Your task to perform on an android device: uninstall "Facebook Lite" Image 0: 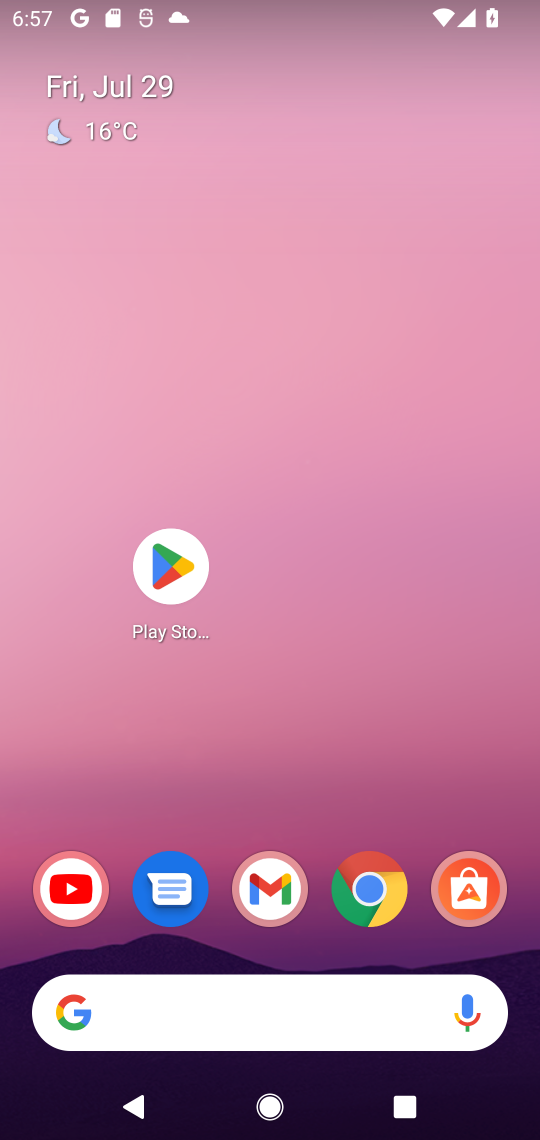
Step 0: press home button
Your task to perform on an android device: uninstall "Facebook Lite" Image 1: 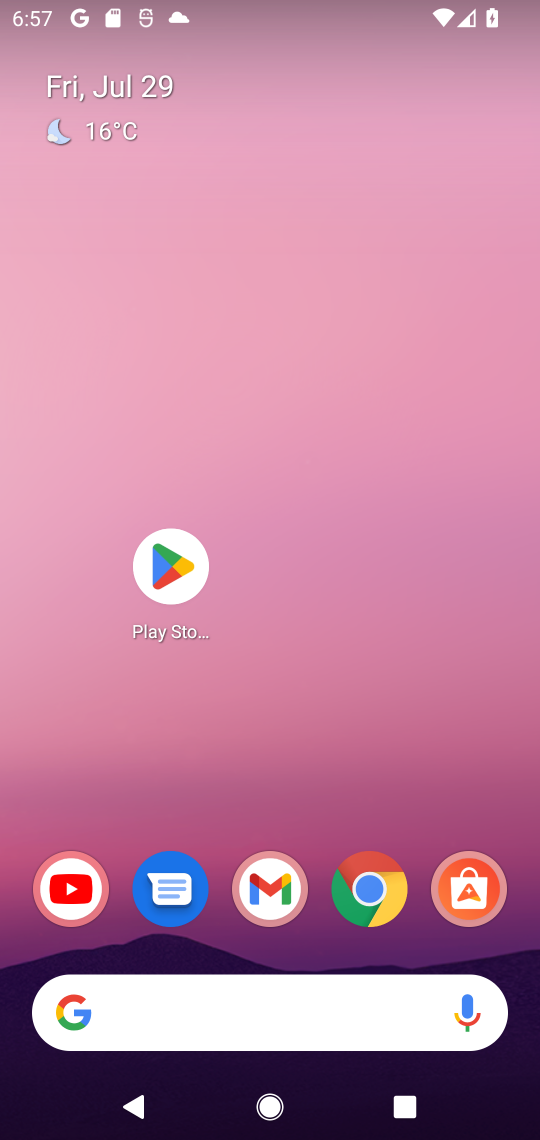
Step 1: click (172, 567)
Your task to perform on an android device: uninstall "Facebook Lite" Image 2: 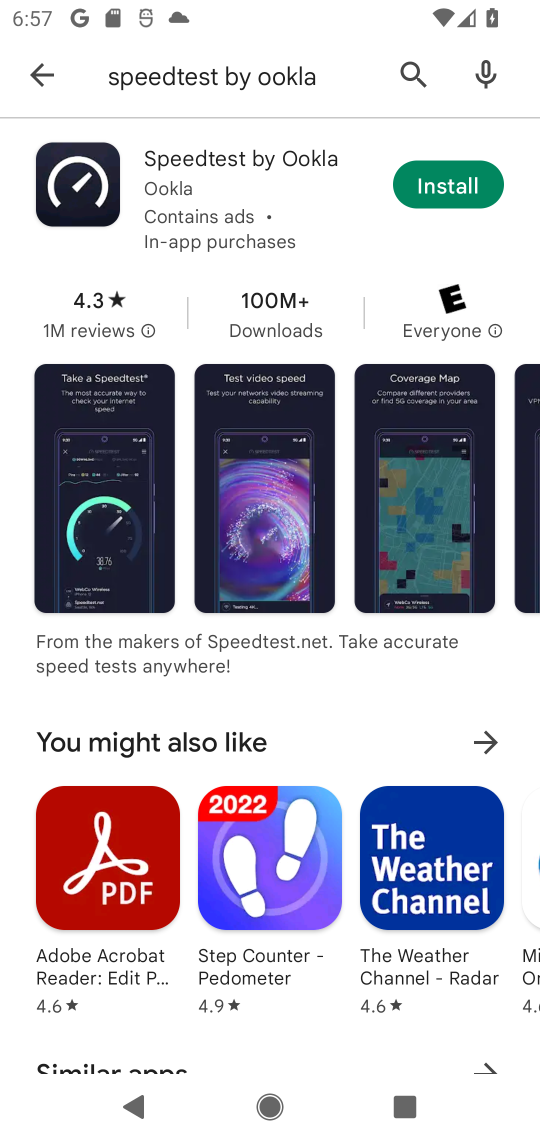
Step 2: click (406, 64)
Your task to perform on an android device: uninstall "Facebook Lite" Image 3: 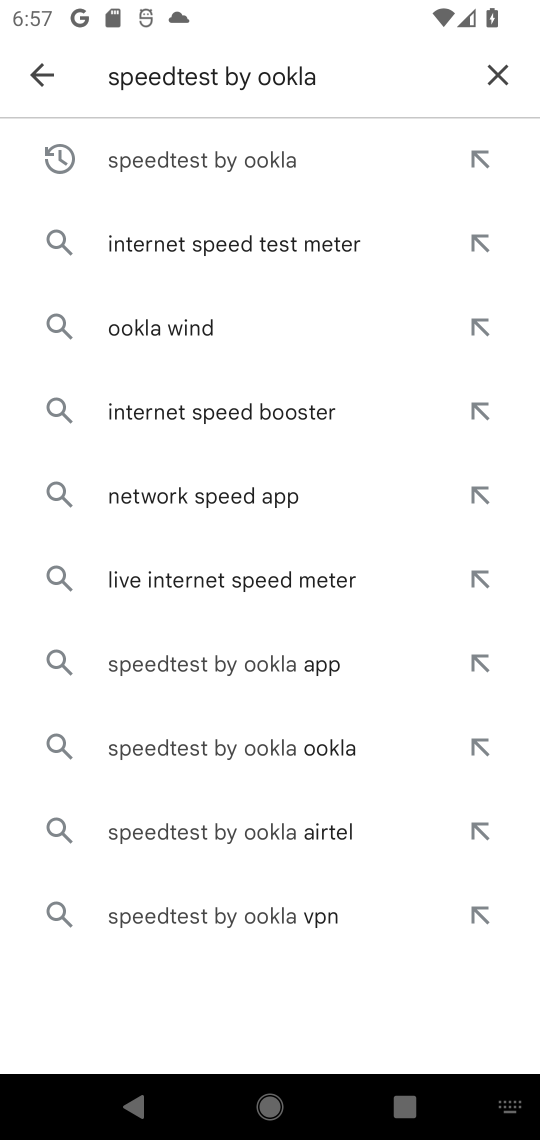
Step 3: click (496, 76)
Your task to perform on an android device: uninstall "Facebook Lite" Image 4: 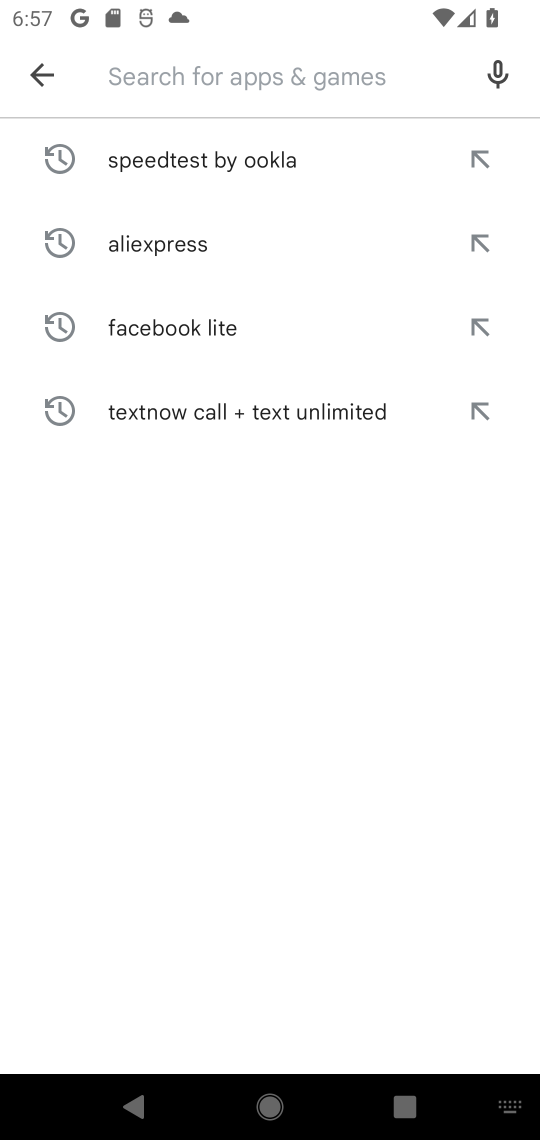
Step 4: type "Facebook Lite"
Your task to perform on an android device: uninstall "Facebook Lite" Image 5: 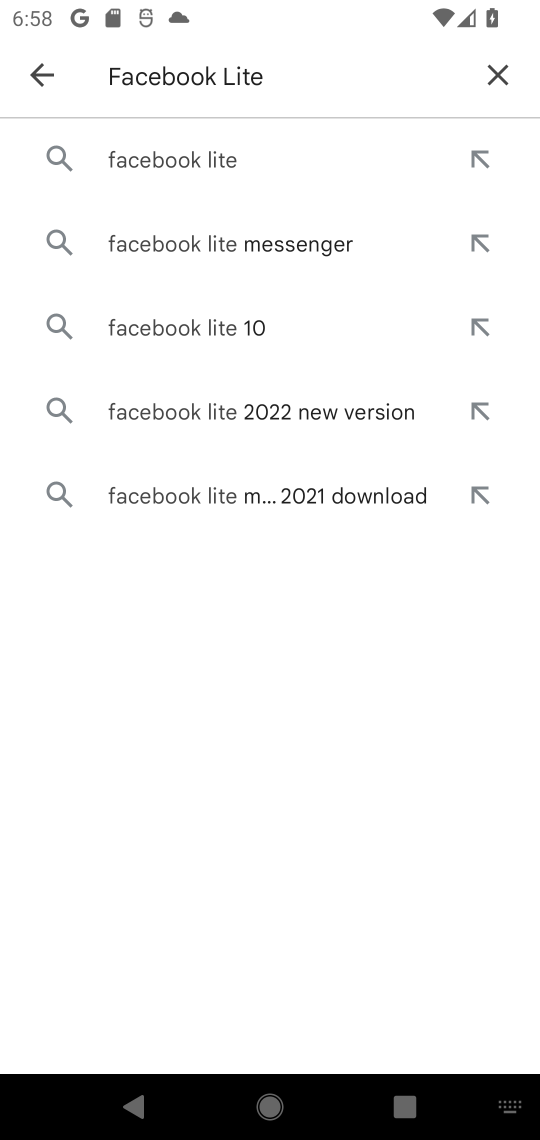
Step 5: click (205, 156)
Your task to perform on an android device: uninstall "Facebook Lite" Image 6: 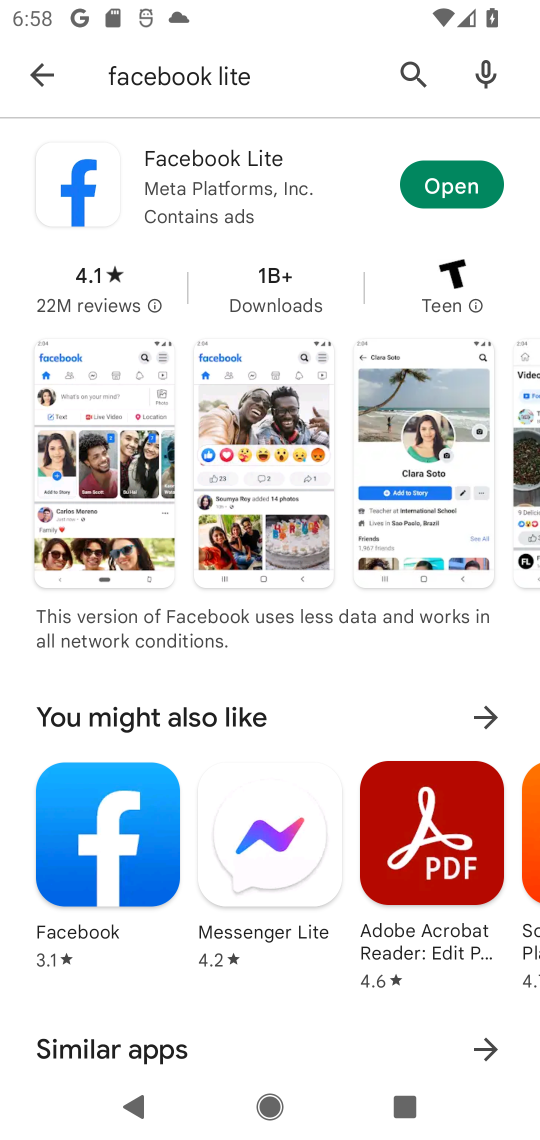
Step 6: click (106, 177)
Your task to perform on an android device: uninstall "Facebook Lite" Image 7: 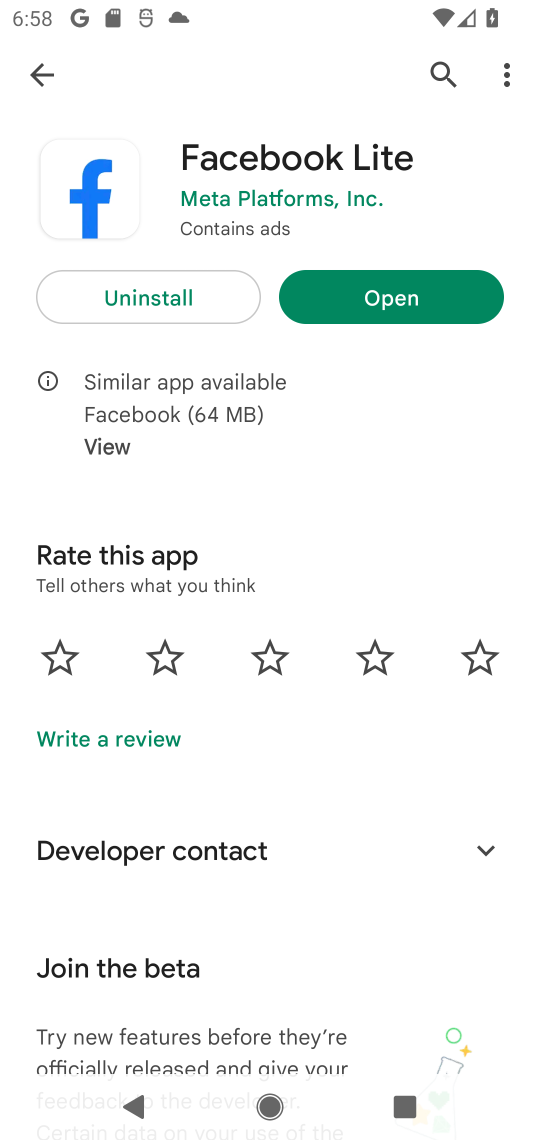
Step 7: click (166, 296)
Your task to perform on an android device: uninstall "Facebook Lite" Image 8: 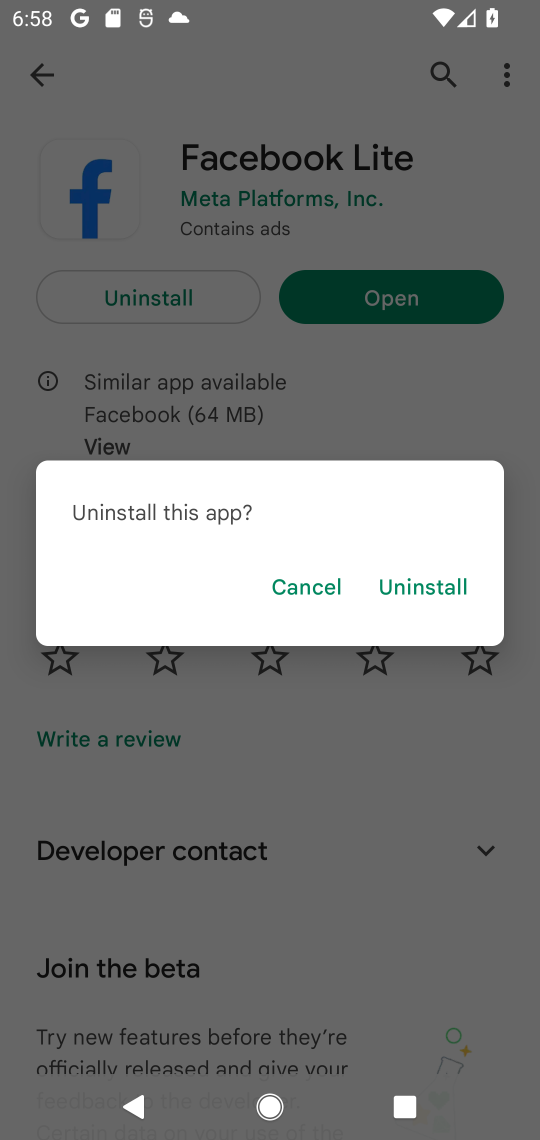
Step 8: click (401, 586)
Your task to perform on an android device: uninstall "Facebook Lite" Image 9: 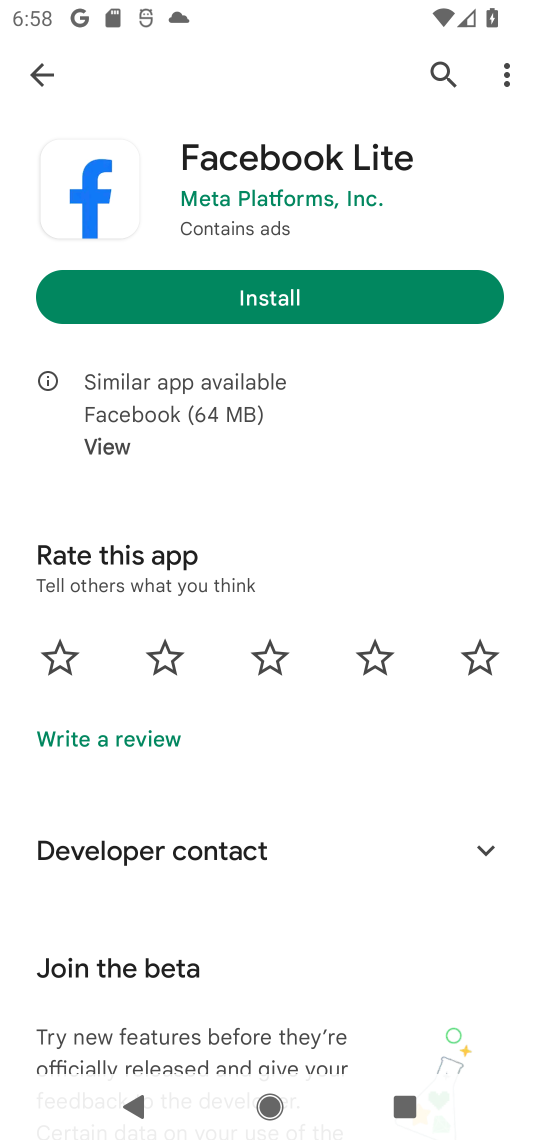
Step 9: task complete